Your task to perform on an android device: Open Google Maps Image 0: 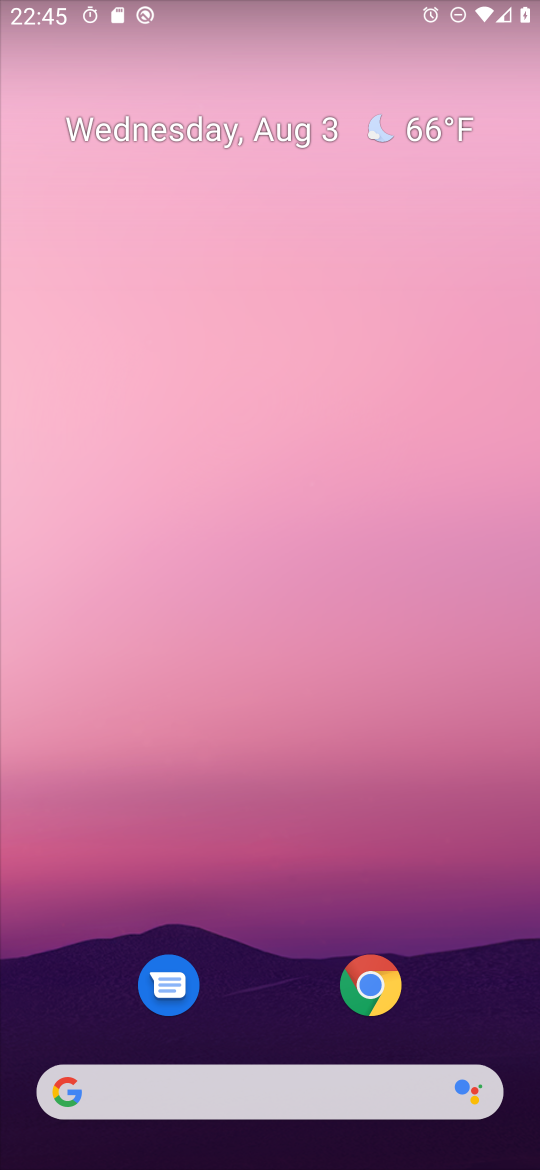
Step 0: drag from (259, 802) to (257, 189)
Your task to perform on an android device: Open Google Maps Image 1: 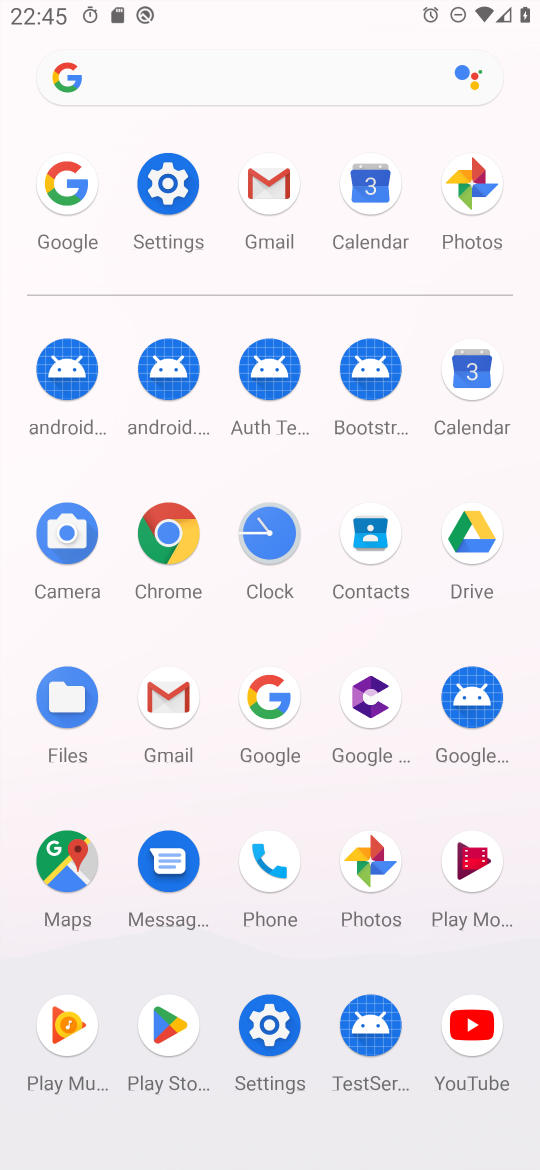
Step 1: click (87, 854)
Your task to perform on an android device: Open Google Maps Image 2: 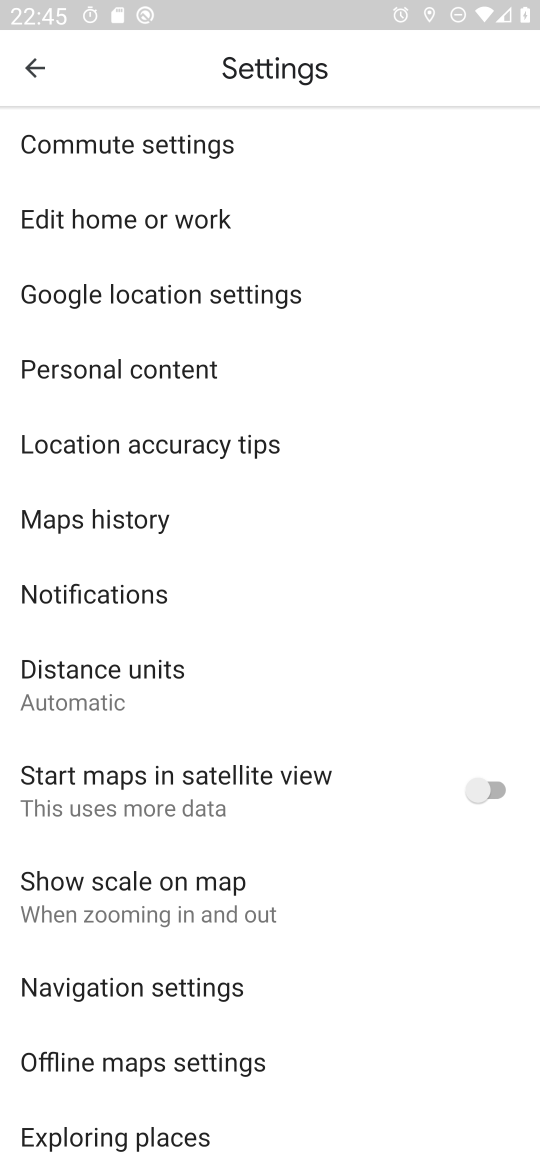
Step 2: click (20, 77)
Your task to perform on an android device: Open Google Maps Image 3: 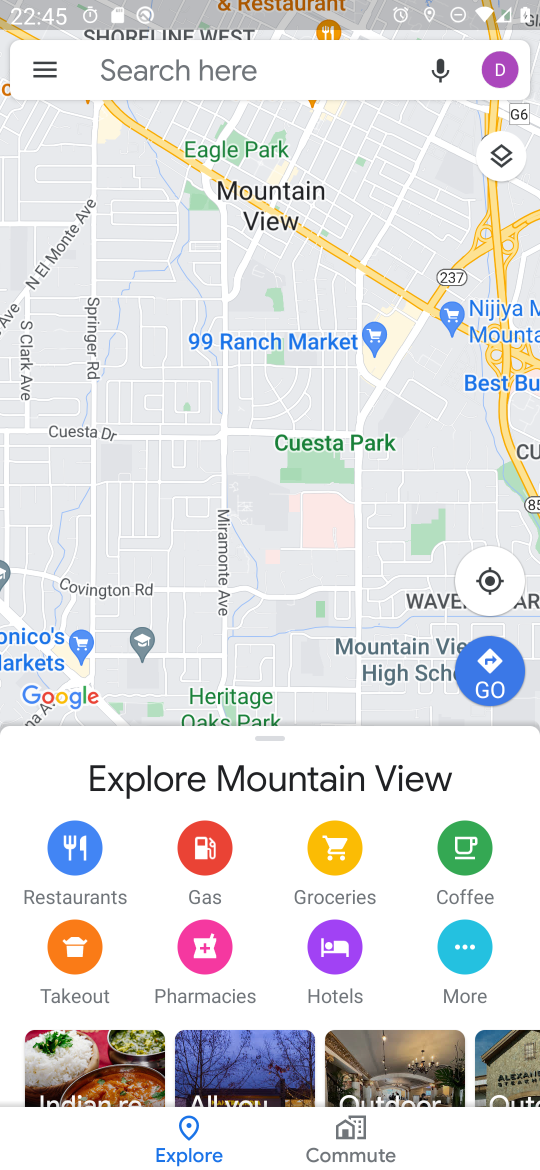
Step 3: task complete